Your task to perform on an android device: turn off data saver in the chrome app Image 0: 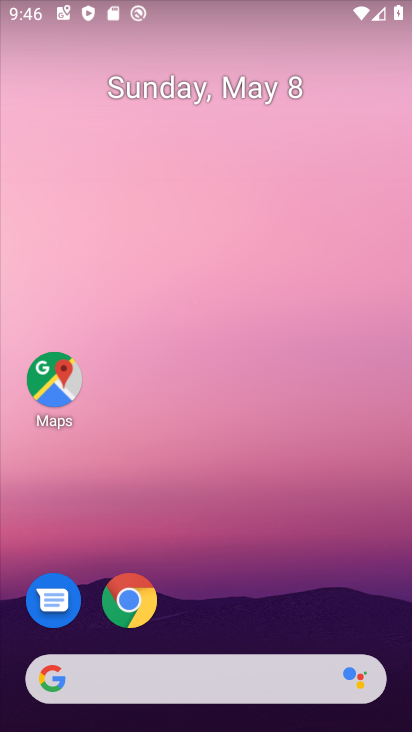
Step 0: click (112, 609)
Your task to perform on an android device: turn off data saver in the chrome app Image 1: 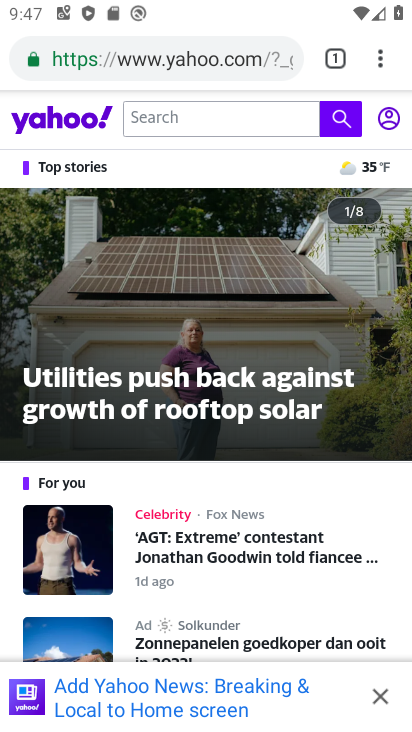
Step 1: drag from (389, 70) to (186, 623)
Your task to perform on an android device: turn off data saver in the chrome app Image 2: 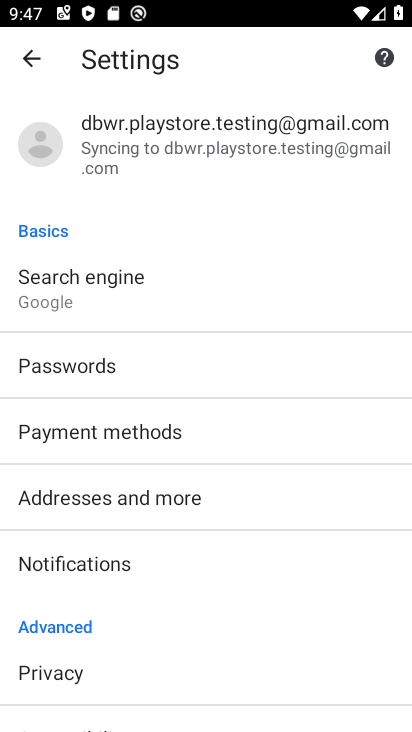
Step 2: drag from (122, 641) to (137, 219)
Your task to perform on an android device: turn off data saver in the chrome app Image 3: 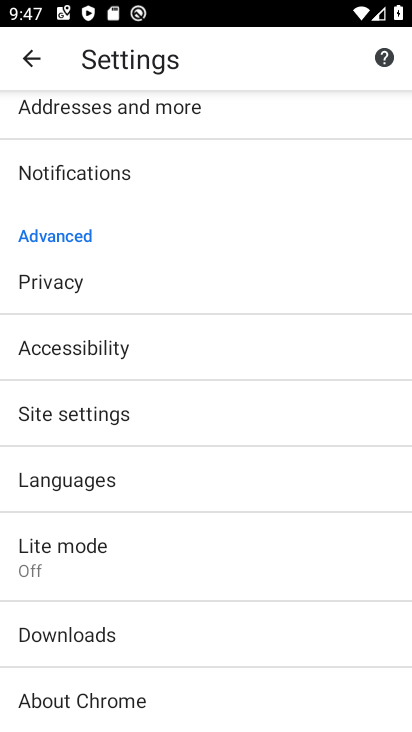
Step 3: click (82, 567)
Your task to perform on an android device: turn off data saver in the chrome app Image 4: 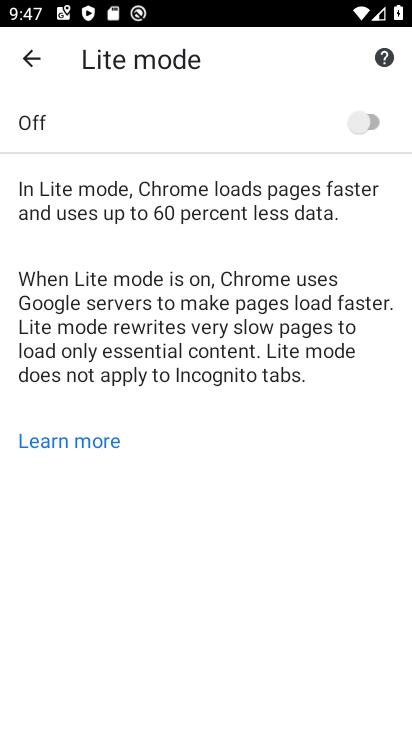
Step 4: task complete